Your task to perform on an android device: turn on airplane mode Image 0: 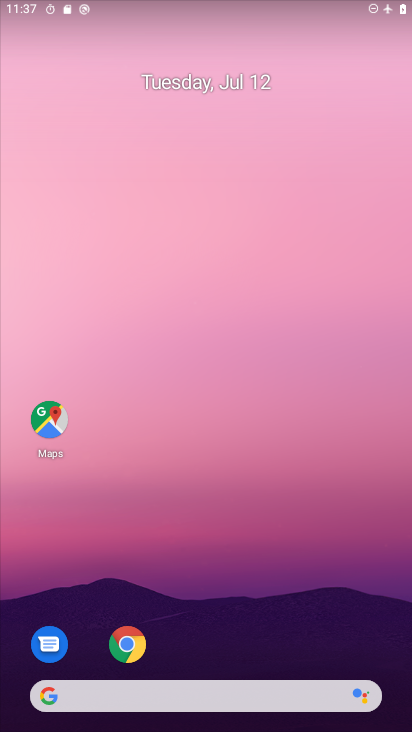
Step 0: drag from (239, 638) to (247, 197)
Your task to perform on an android device: turn on airplane mode Image 1: 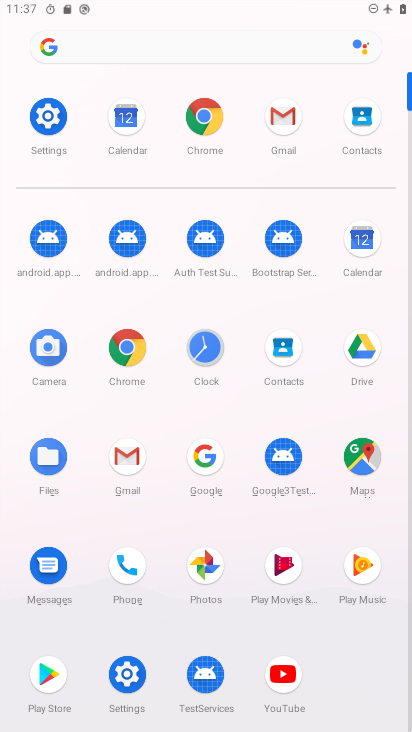
Step 1: click (66, 122)
Your task to perform on an android device: turn on airplane mode Image 2: 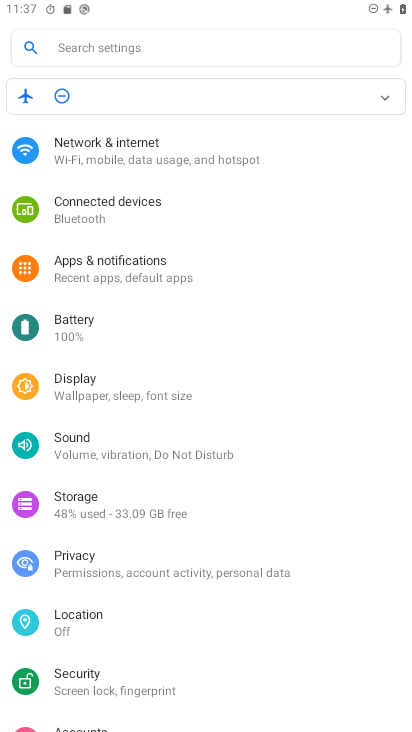
Step 2: click (169, 151)
Your task to perform on an android device: turn on airplane mode Image 3: 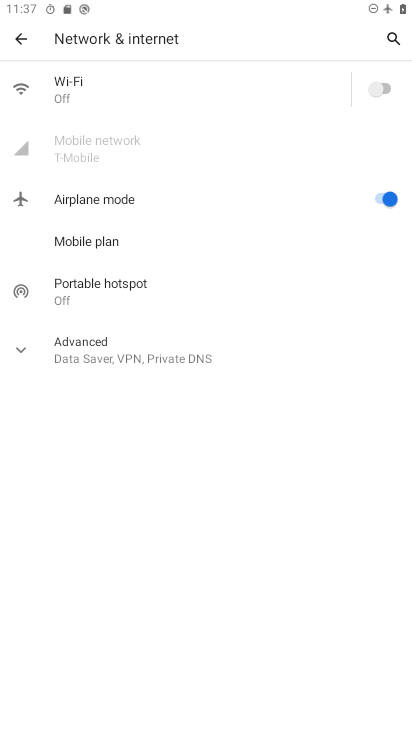
Step 3: task complete